Your task to perform on an android device: Is it going to rain today? Image 0: 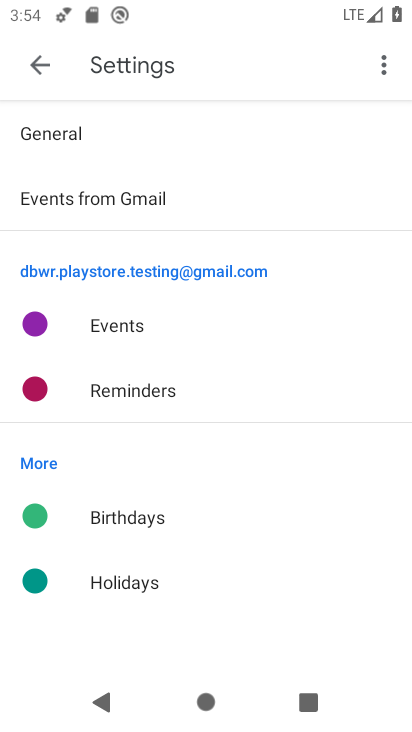
Step 0: press home button
Your task to perform on an android device: Is it going to rain today? Image 1: 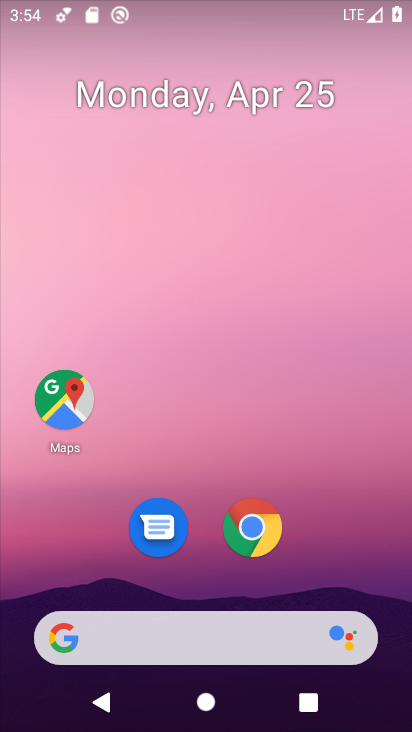
Step 1: drag from (8, 142) to (407, 262)
Your task to perform on an android device: Is it going to rain today? Image 2: 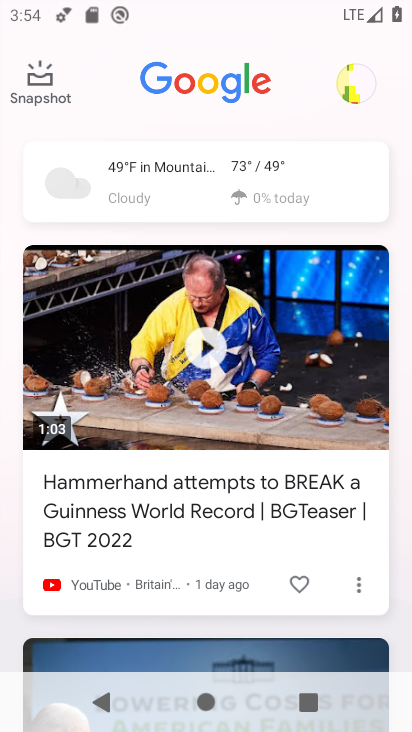
Step 2: click (261, 175)
Your task to perform on an android device: Is it going to rain today? Image 3: 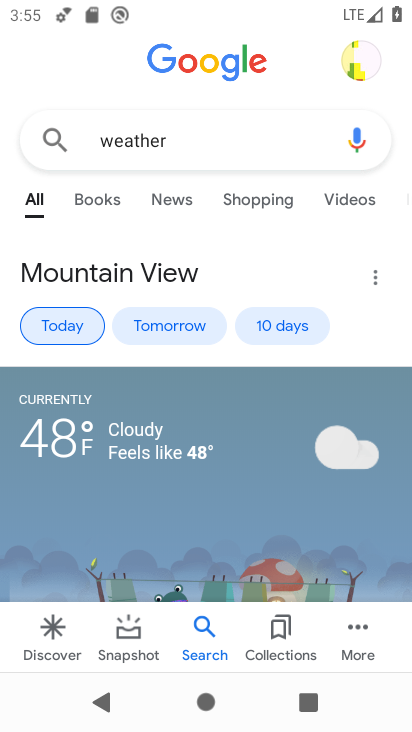
Step 3: task complete